Your task to perform on an android device: Go to Yahoo.com Image 0: 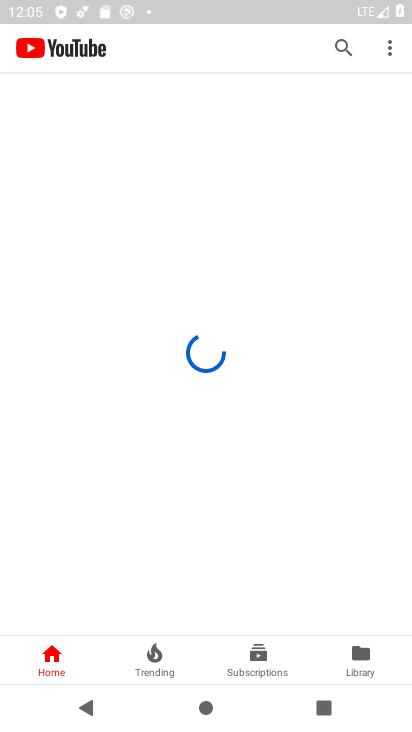
Step 0: drag from (241, 602) to (233, 146)
Your task to perform on an android device: Go to Yahoo.com Image 1: 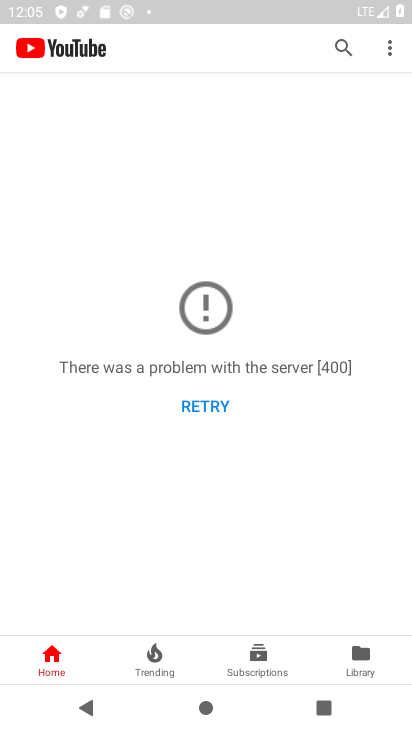
Step 1: press home button
Your task to perform on an android device: Go to Yahoo.com Image 2: 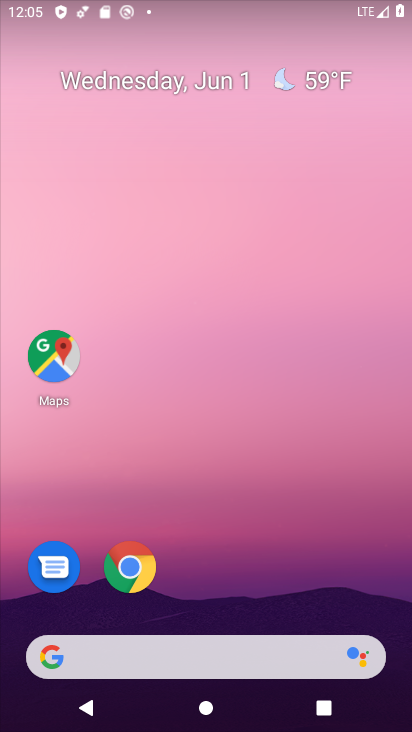
Step 2: click (131, 563)
Your task to perform on an android device: Go to Yahoo.com Image 3: 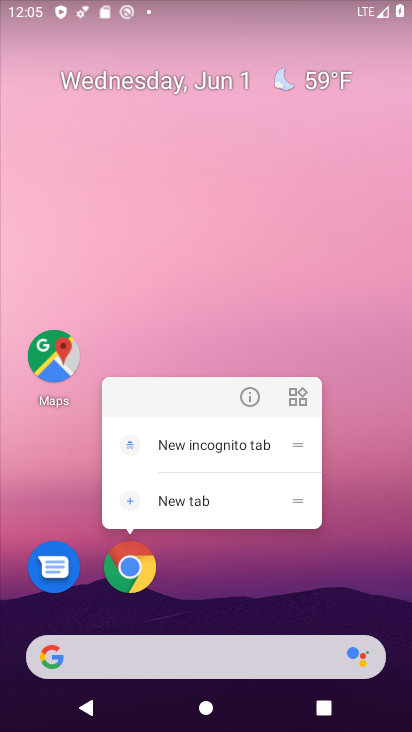
Step 3: click (131, 563)
Your task to perform on an android device: Go to Yahoo.com Image 4: 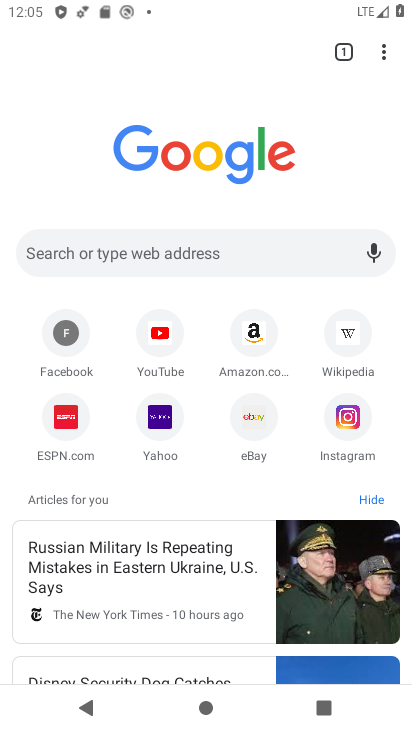
Step 4: click (148, 416)
Your task to perform on an android device: Go to Yahoo.com Image 5: 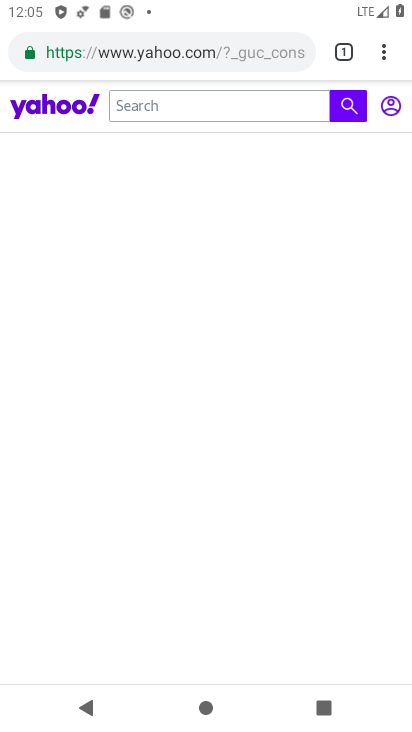
Step 5: task complete